Your task to perform on an android device: see tabs open on other devices in the chrome app Image 0: 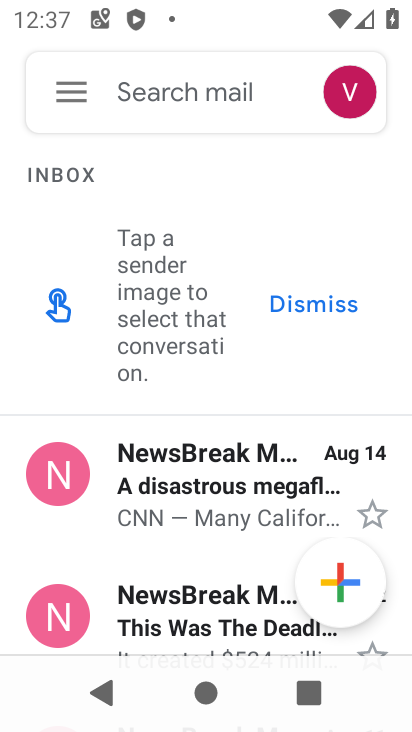
Step 0: press home button
Your task to perform on an android device: see tabs open on other devices in the chrome app Image 1: 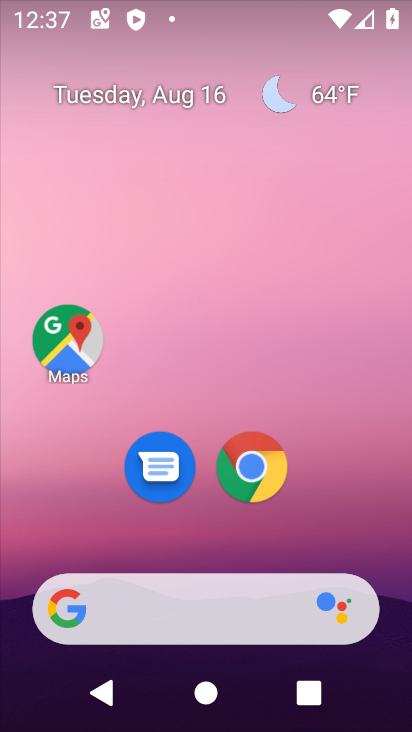
Step 1: drag from (361, 508) to (375, 76)
Your task to perform on an android device: see tabs open on other devices in the chrome app Image 2: 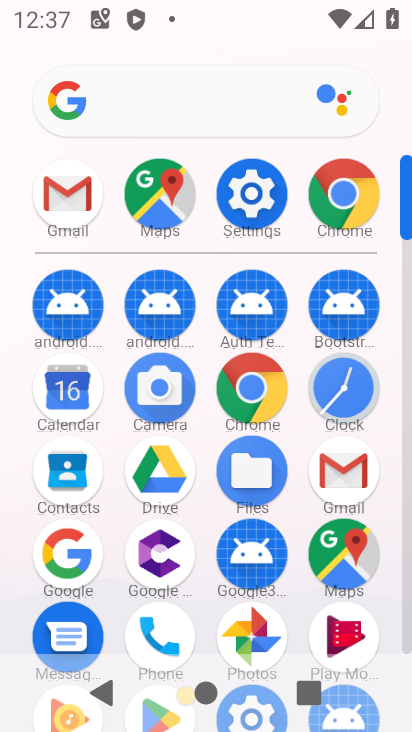
Step 2: click (252, 393)
Your task to perform on an android device: see tabs open on other devices in the chrome app Image 3: 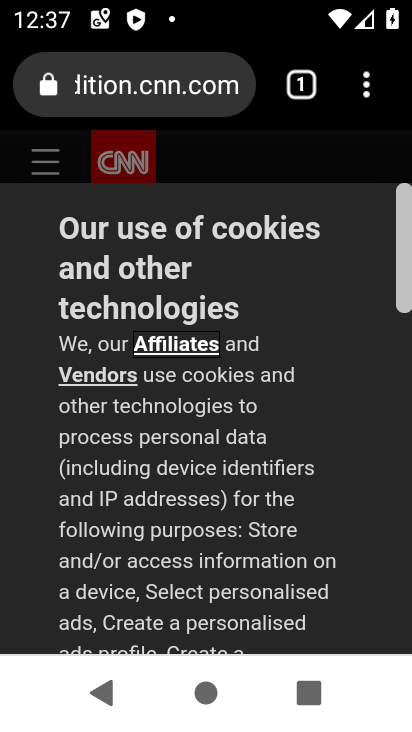
Step 3: click (368, 97)
Your task to perform on an android device: see tabs open on other devices in the chrome app Image 4: 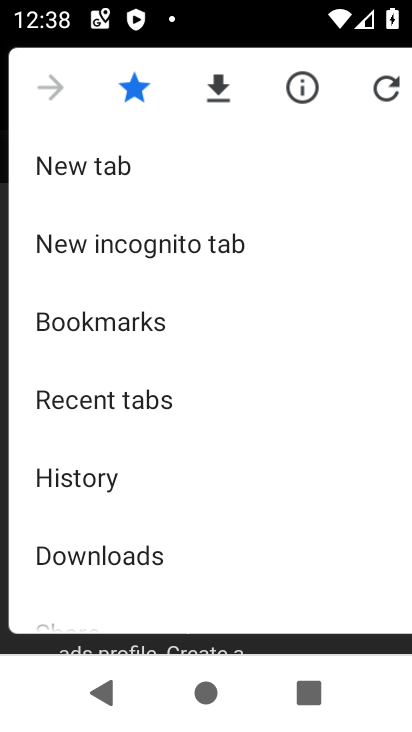
Step 4: click (177, 405)
Your task to perform on an android device: see tabs open on other devices in the chrome app Image 5: 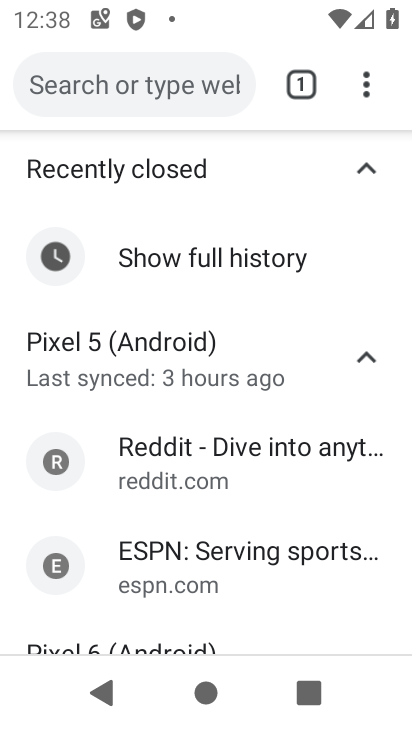
Step 5: click (300, 93)
Your task to perform on an android device: see tabs open on other devices in the chrome app Image 6: 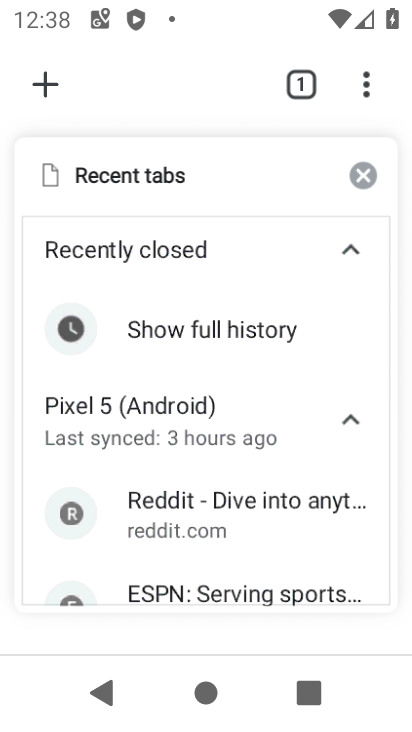
Step 6: task complete